Your task to perform on an android device: star an email in the gmail app Image 0: 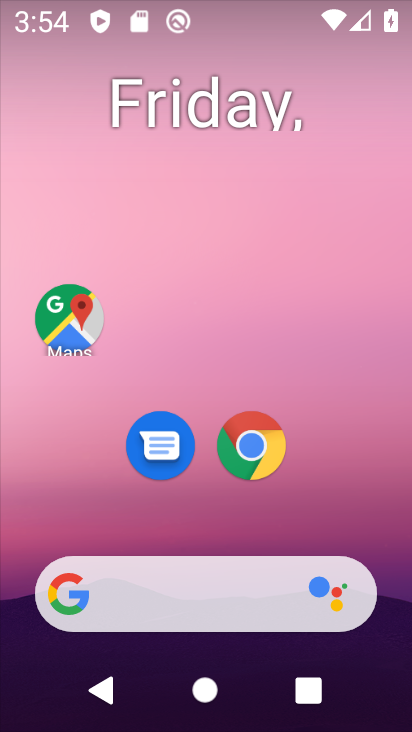
Step 0: drag from (350, 524) to (309, 8)
Your task to perform on an android device: star an email in the gmail app Image 1: 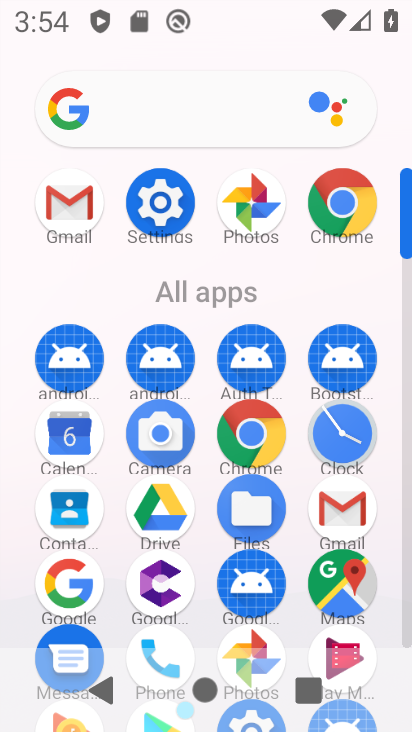
Step 1: drag from (18, 481) to (22, 197)
Your task to perform on an android device: star an email in the gmail app Image 2: 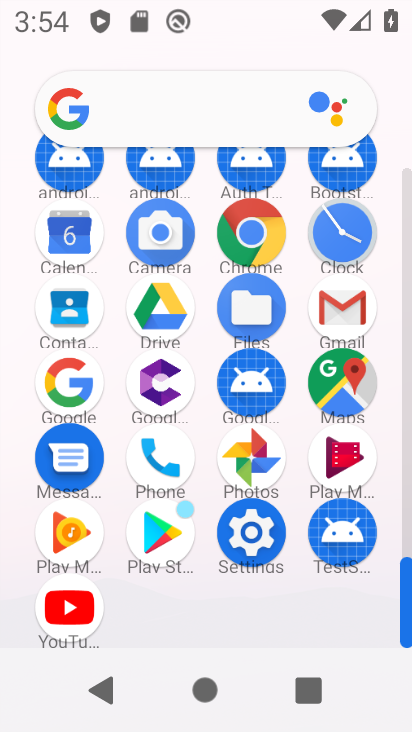
Step 2: click (339, 303)
Your task to perform on an android device: star an email in the gmail app Image 3: 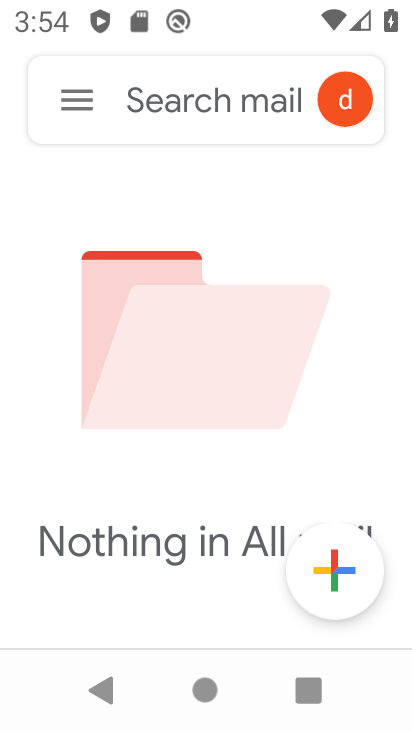
Step 3: click (67, 89)
Your task to perform on an android device: star an email in the gmail app Image 4: 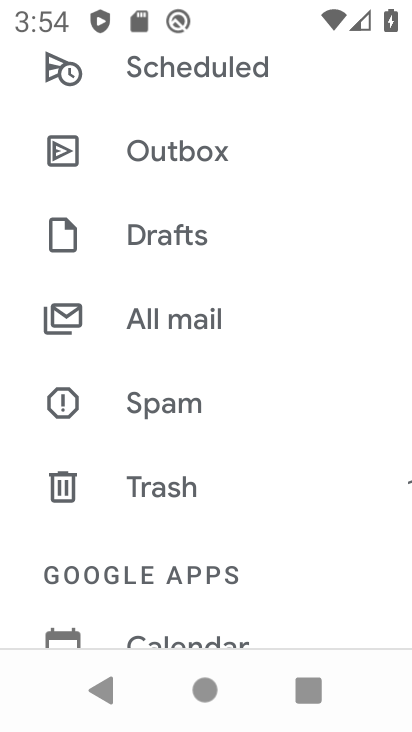
Step 4: drag from (248, 193) to (279, 598)
Your task to perform on an android device: star an email in the gmail app Image 5: 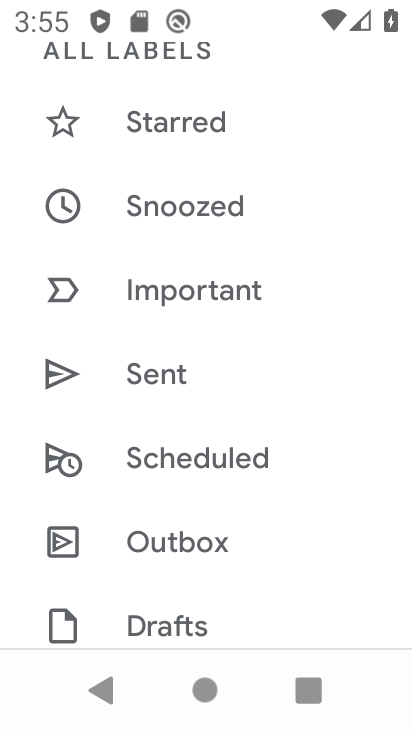
Step 5: drag from (272, 239) to (262, 650)
Your task to perform on an android device: star an email in the gmail app Image 6: 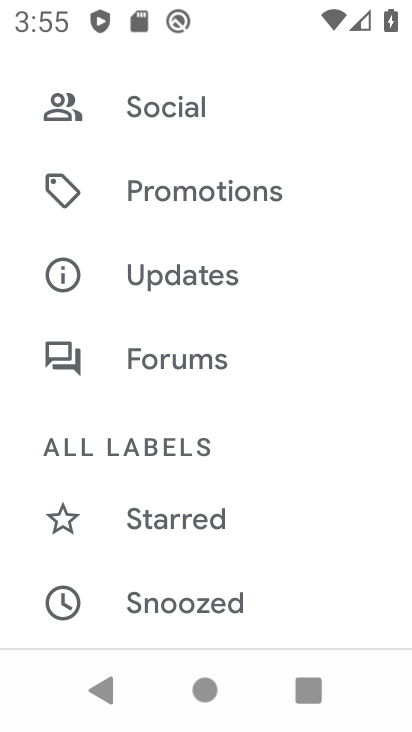
Step 6: drag from (259, 180) to (253, 592)
Your task to perform on an android device: star an email in the gmail app Image 7: 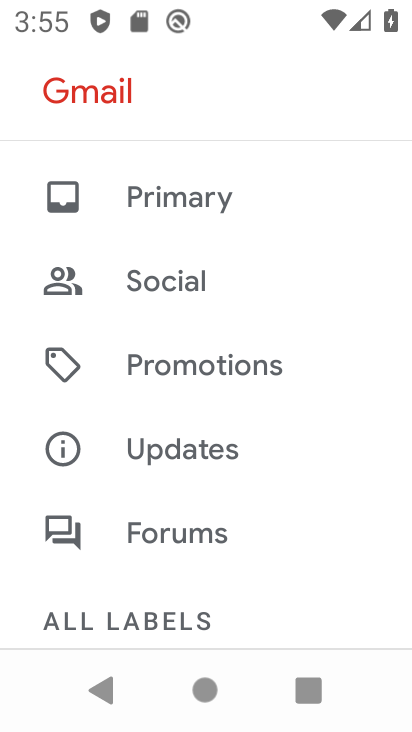
Step 7: drag from (242, 545) to (230, 115)
Your task to perform on an android device: star an email in the gmail app Image 8: 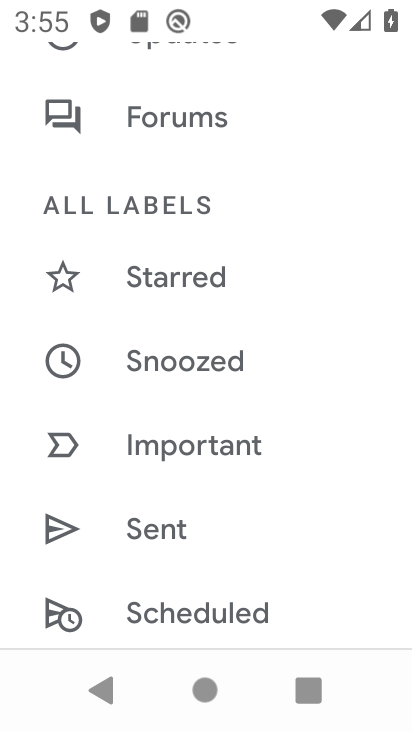
Step 8: click (204, 273)
Your task to perform on an android device: star an email in the gmail app Image 9: 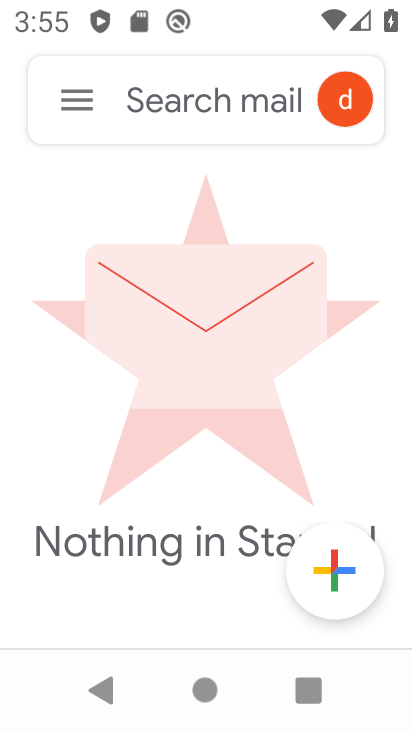
Step 9: click (81, 96)
Your task to perform on an android device: star an email in the gmail app Image 10: 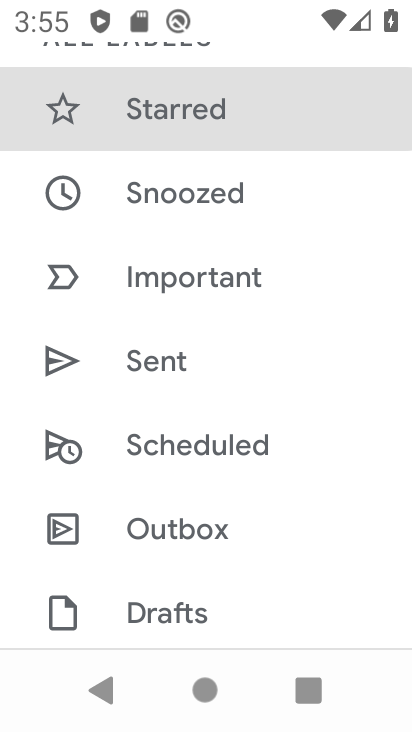
Step 10: drag from (212, 128) to (261, 620)
Your task to perform on an android device: star an email in the gmail app Image 11: 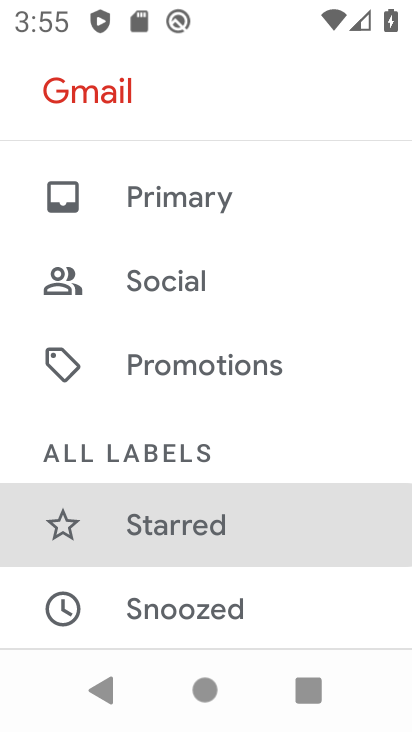
Step 11: click (253, 183)
Your task to perform on an android device: star an email in the gmail app Image 12: 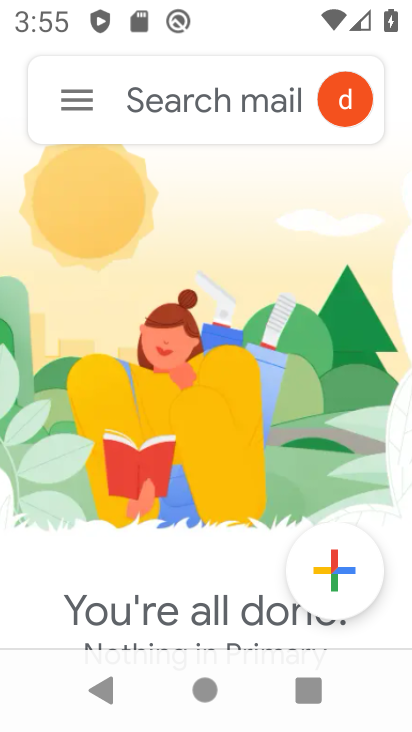
Step 12: drag from (216, 421) to (206, 100)
Your task to perform on an android device: star an email in the gmail app Image 13: 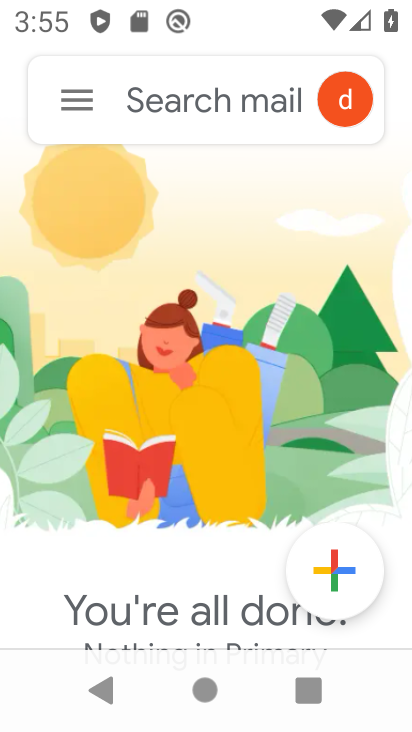
Step 13: drag from (137, 485) to (185, 111)
Your task to perform on an android device: star an email in the gmail app Image 14: 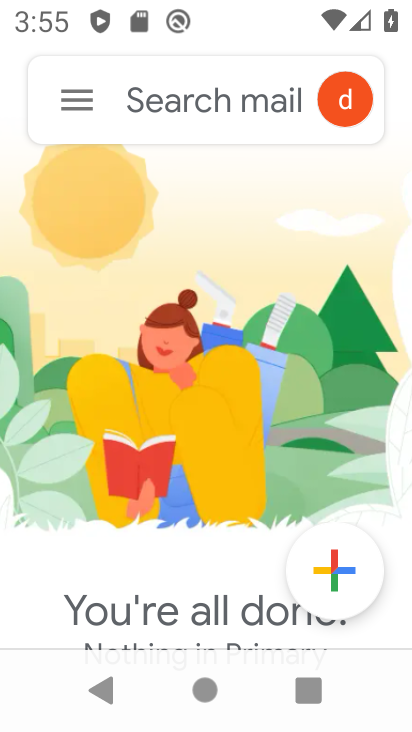
Step 14: click (86, 88)
Your task to perform on an android device: star an email in the gmail app Image 15: 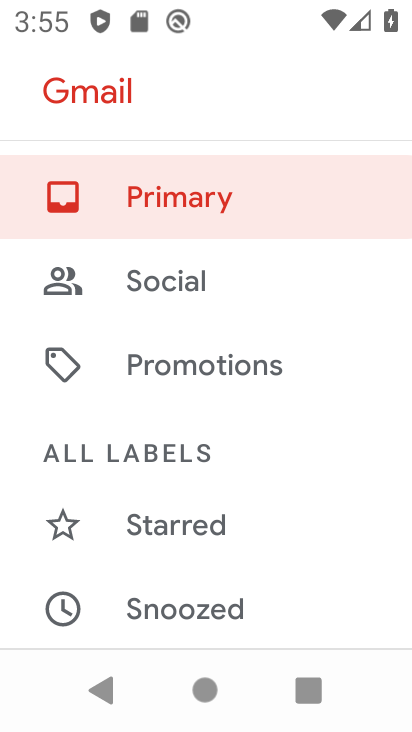
Step 15: drag from (197, 555) to (258, 138)
Your task to perform on an android device: star an email in the gmail app Image 16: 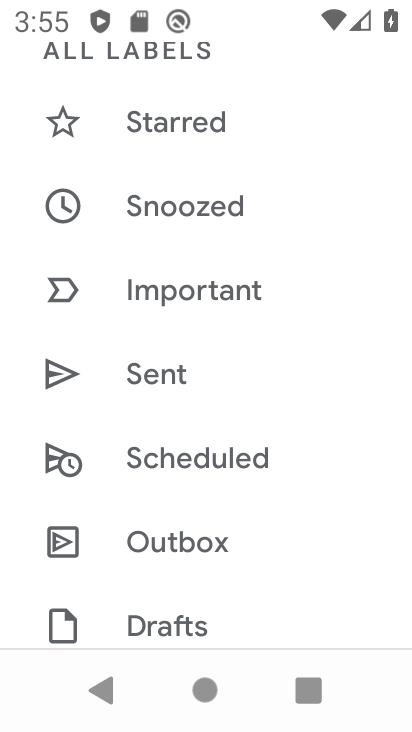
Step 16: drag from (241, 543) to (264, 144)
Your task to perform on an android device: star an email in the gmail app Image 17: 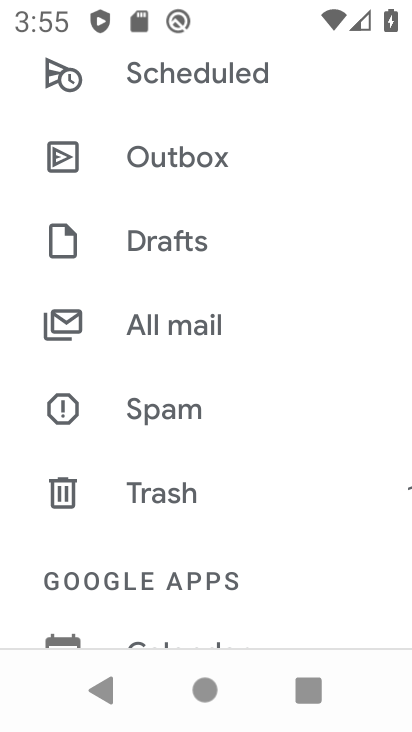
Step 17: click (211, 318)
Your task to perform on an android device: star an email in the gmail app Image 18: 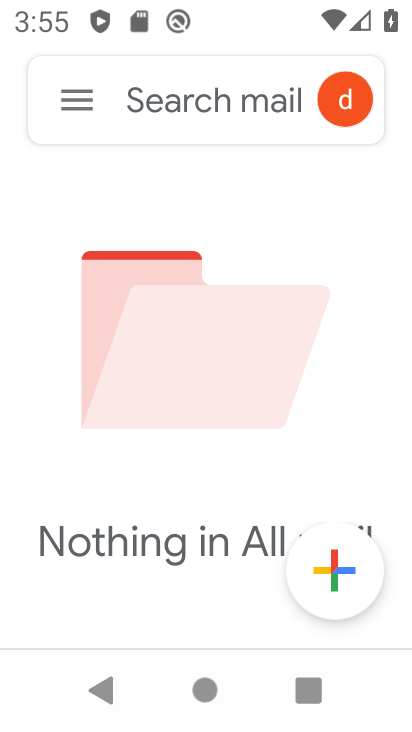
Step 18: task complete